Your task to perform on an android device: set default search engine in the chrome app Image 0: 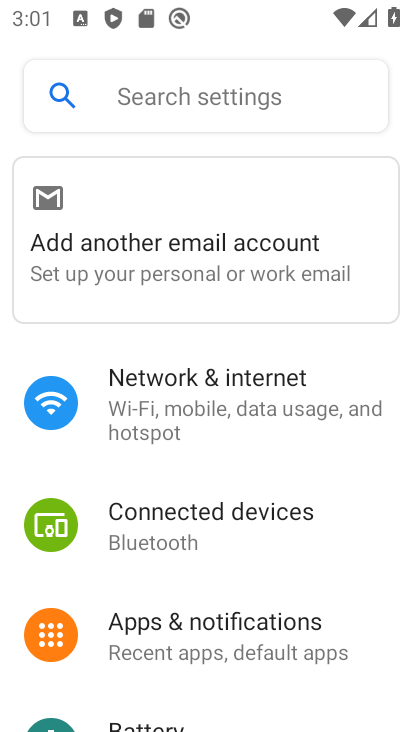
Step 0: press home button
Your task to perform on an android device: set default search engine in the chrome app Image 1: 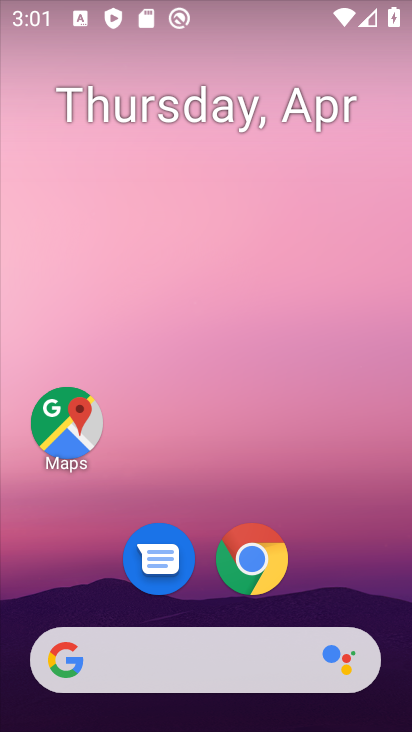
Step 1: click (268, 560)
Your task to perform on an android device: set default search engine in the chrome app Image 2: 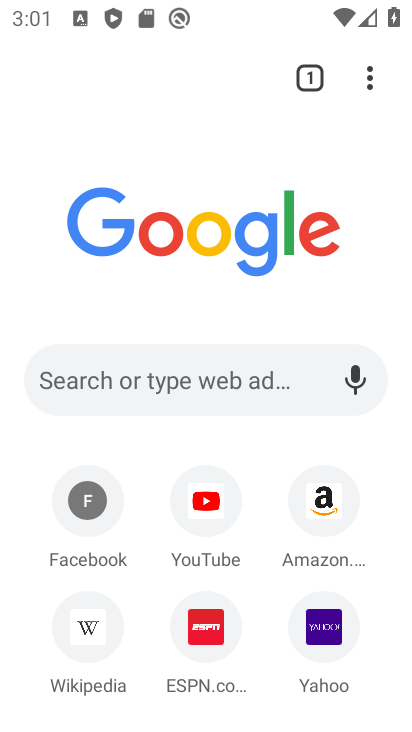
Step 2: click (370, 77)
Your task to perform on an android device: set default search engine in the chrome app Image 3: 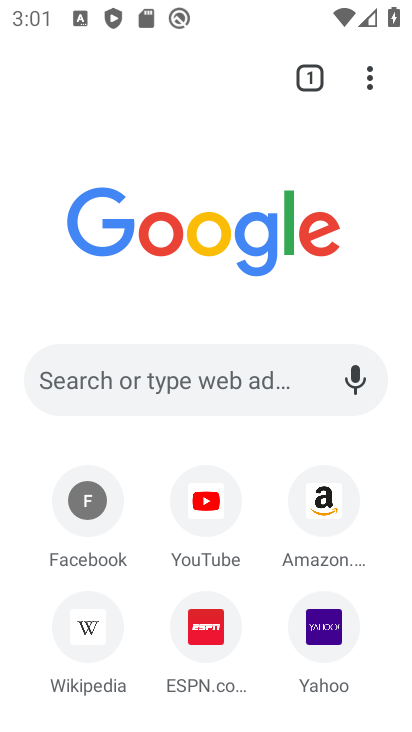
Step 3: click (368, 76)
Your task to perform on an android device: set default search engine in the chrome app Image 4: 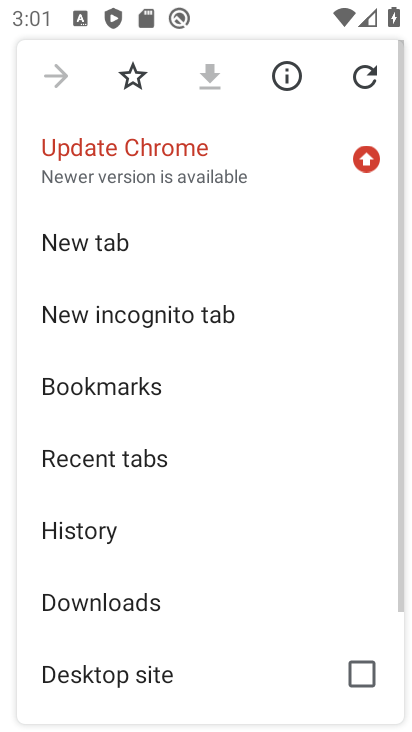
Step 4: drag from (206, 553) to (222, 194)
Your task to perform on an android device: set default search engine in the chrome app Image 5: 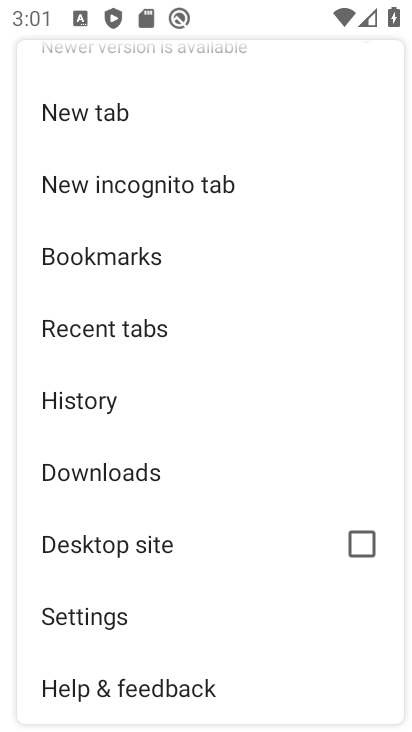
Step 5: click (130, 604)
Your task to perform on an android device: set default search engine in the chrome app Image 6: 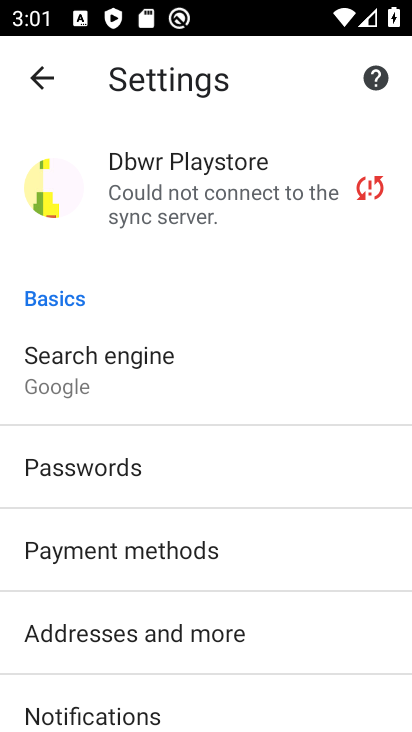
Step 6: click (180, 357)
Your task to perform on an android device: set default search engine in the chrome app Image 7: 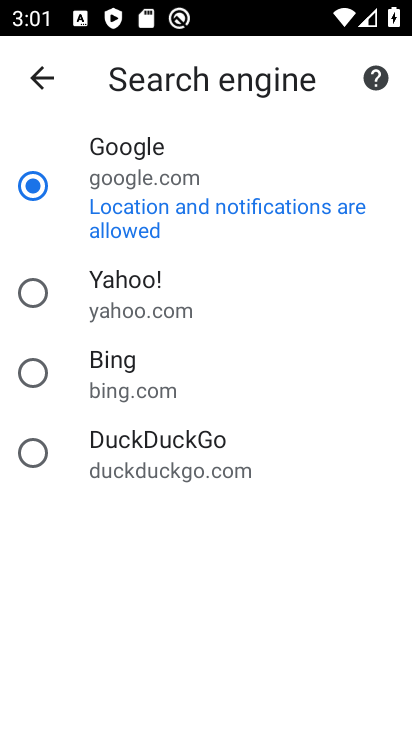
Step 7: task complete